Your task to perform on an android device: Go to network settings Image 0: 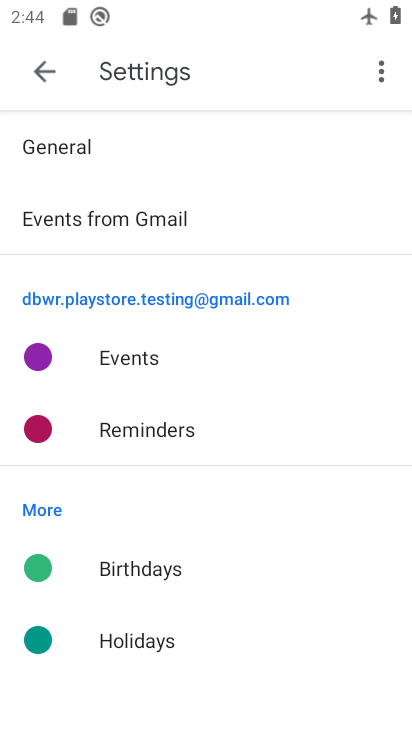
Step 0: press home button
Your task to perform on an android device: Go to network settings Image 1: 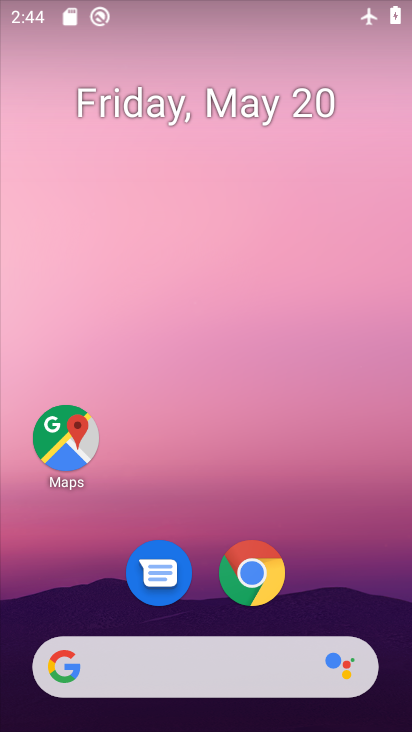
Step 1: drag from (206, 627) to (207, 245)
Your task to perform on an android device: Go to network settings Image 2: 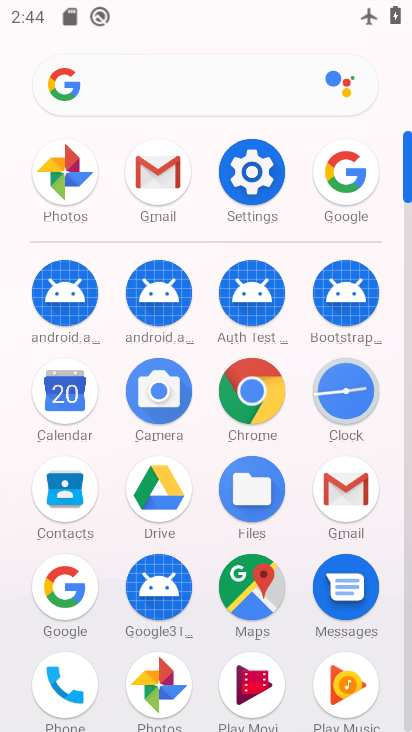
Step 2: click (255, 187)
Your task to perform on an android device: Go to network settings Image 3: 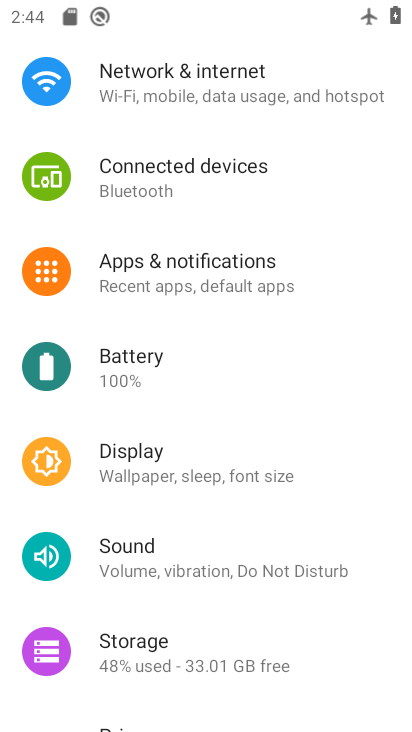
Step 3: click (221, 104)
Your task to perform on an android device: Go to network settings Image 4: 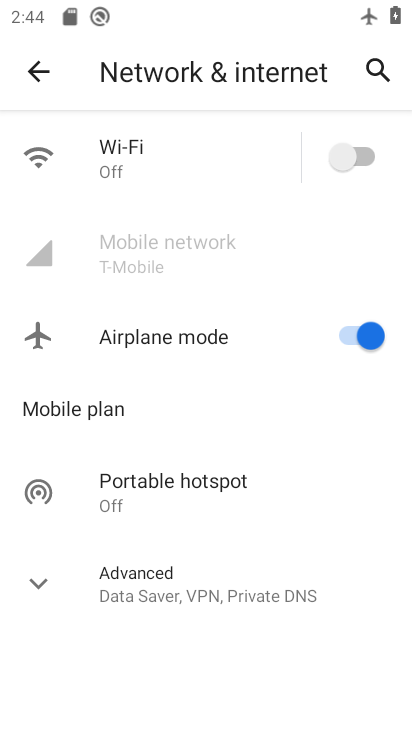
Step 4: task complete